Your task to perform on an android device: turn on location history Image 0: 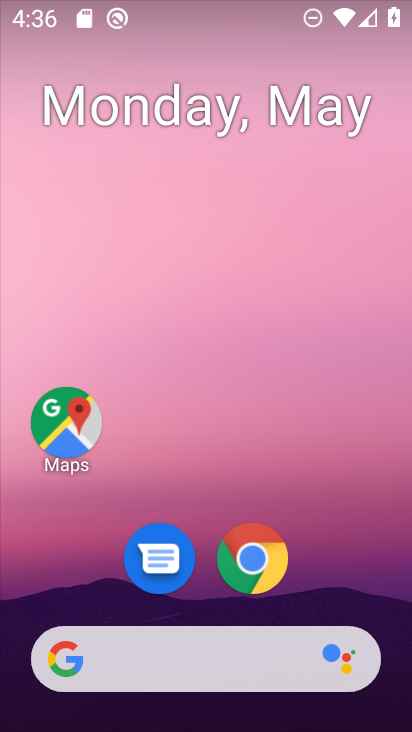
Step 0: click (71, 426)
Your task to perform on an android device: turn on location history Image 1: 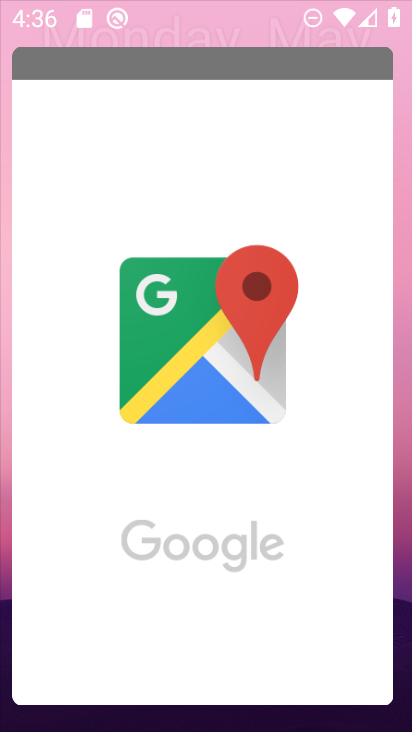
Step 1: click (71, 426)
Your task to perform on an android device: turn on location history Image 2: 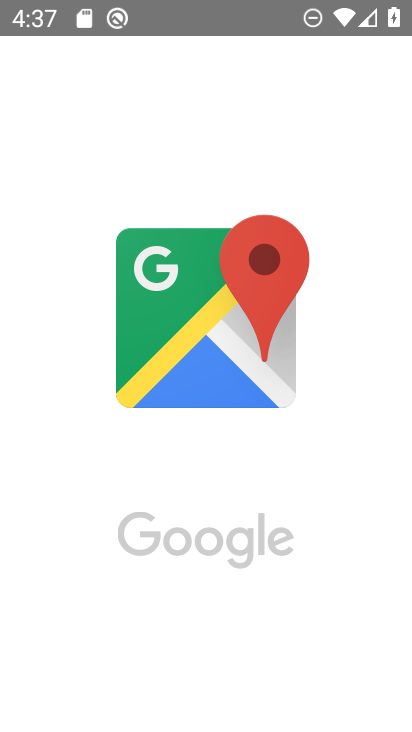
Step 2: task complete